Your task to perform on an android device: Open location settings Image 0: 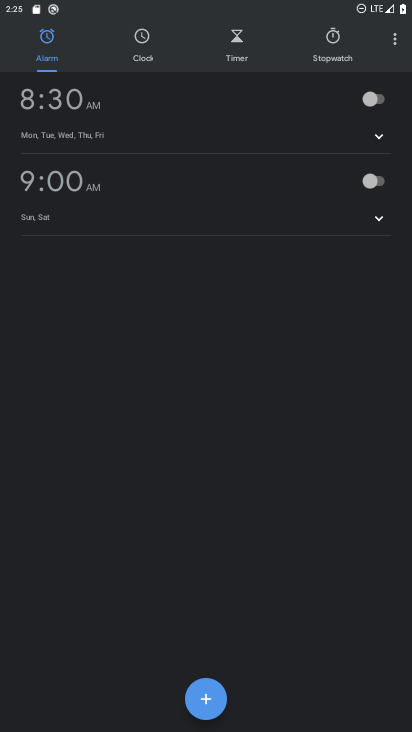
Step 0: press home button
Your task to perform on an android device: Open location settings Image 1: 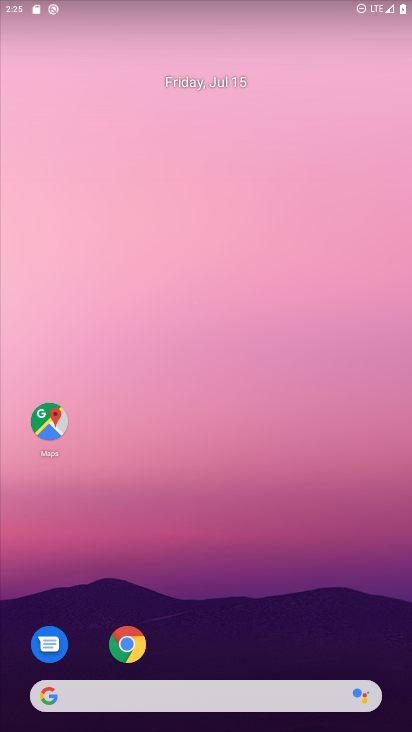
Step 1: drag from (107, 400) to (242, 141)
Your task to perform on an android device: Open location settings Image 2: 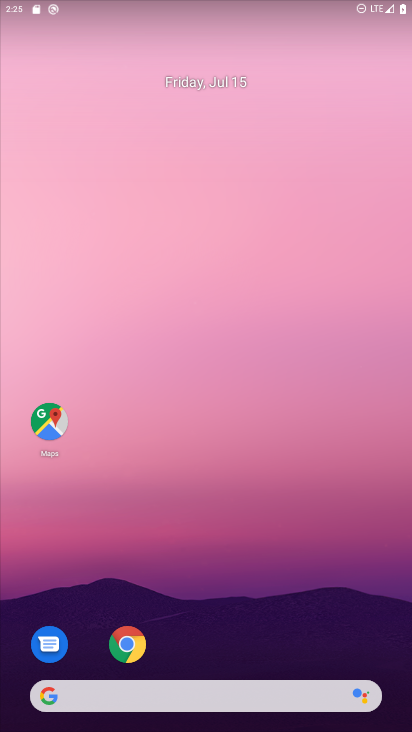
Step 2: drag from (6, 690) to (261, 60)
Your task to perform on an android device: Open location settings Image 3: 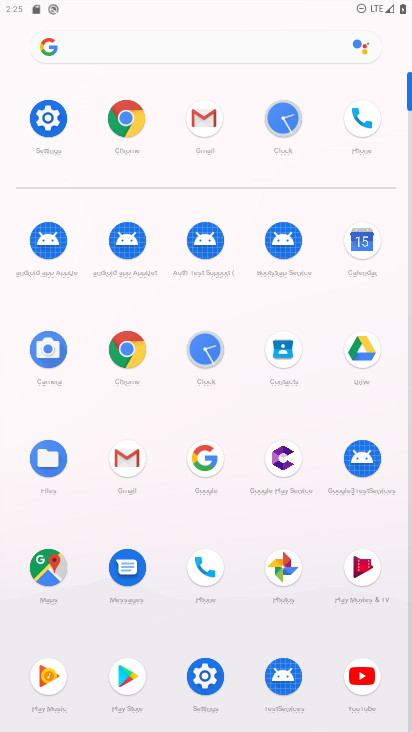
Step 3: click (43, 105)
Your task to perform on an android device: Open location settings Image 4: 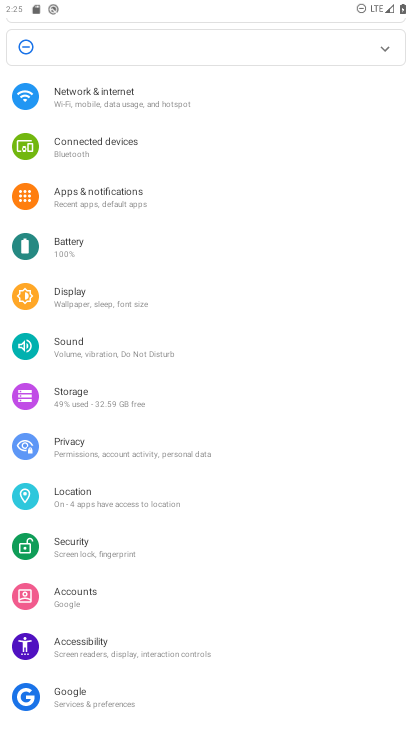
Step 4: click (73, 484)
Your task to perform on an android device: Open location settings Image 5: 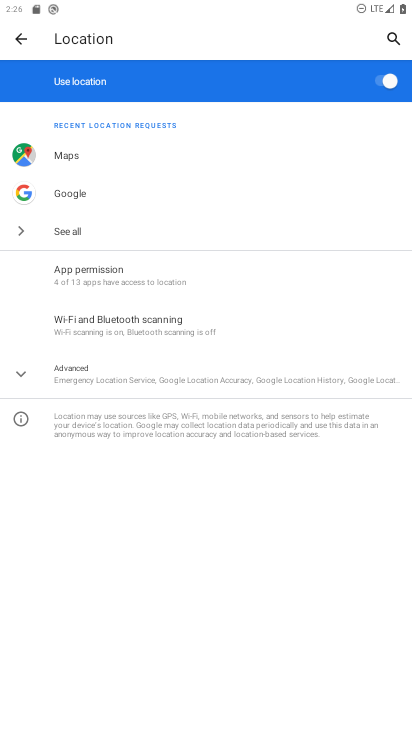
Step 5: task complete